Your task to perform on an android device: Do I have any events tomorrow? Image 0: 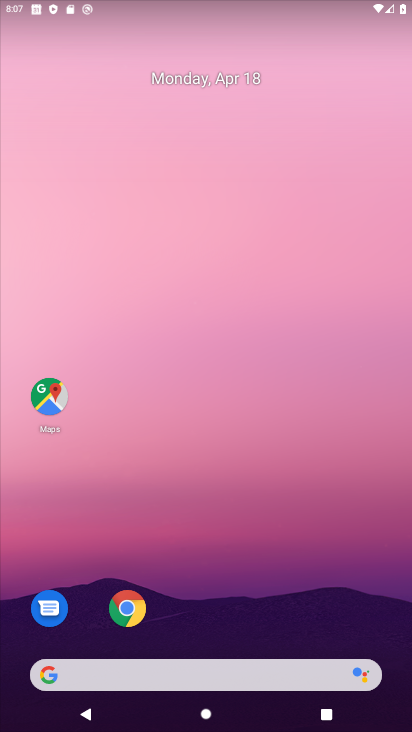
Step 0: drag from (211, 557) to (186, 175)
Your task to perform on an android device: Do I have any events tomorrow? Image 1: 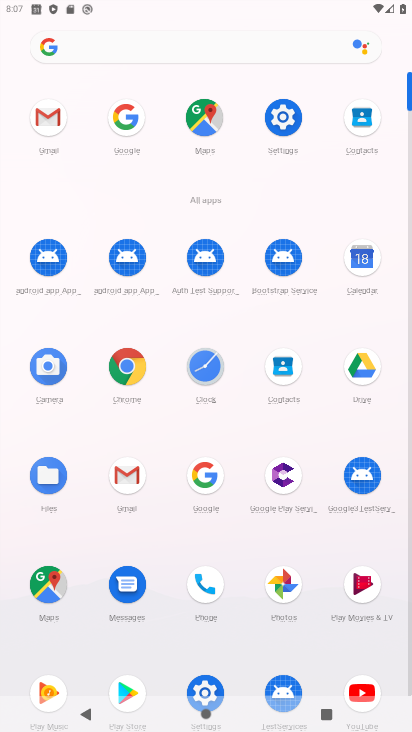
Step 1: drag from (229, 548) to (225, 448)
Your task to perform on an android device: Do I have any events tomorrow? Image 2: 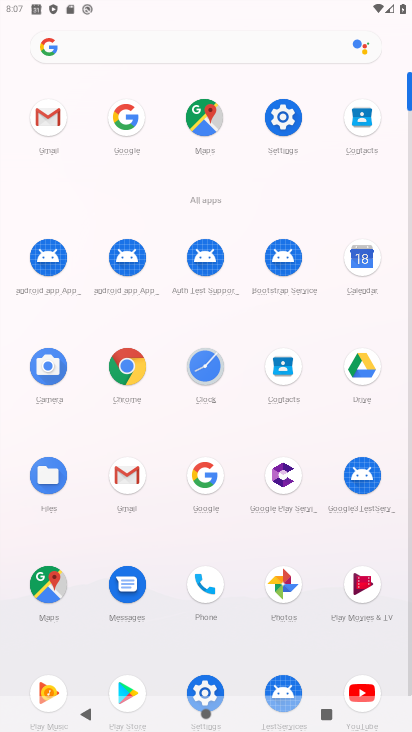
Step 2: click (359, 262)
Your task to perform on an android device: Do I have any events tomorrow? Image 3: 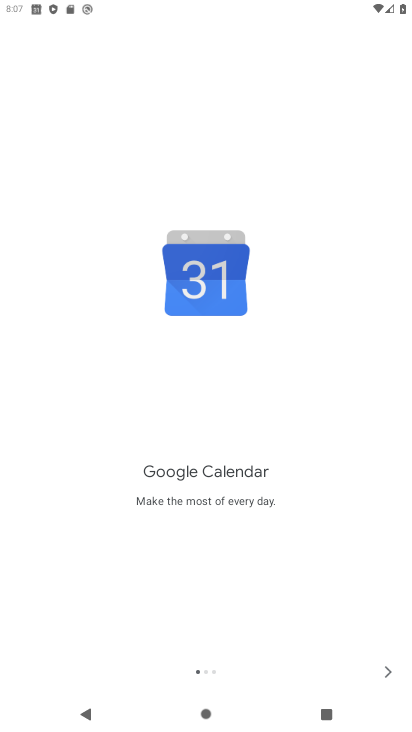
Step 3: click (384, 670)
Your task to perform on an android device: Do I have any events tomorrow? Image 4: 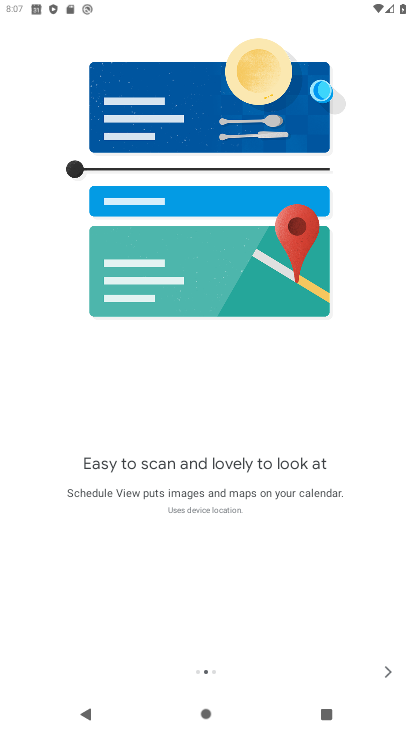
Step 4: click (384, 670)
Your task to perform on an android device: Do I have any events tomorrow? Image 5: 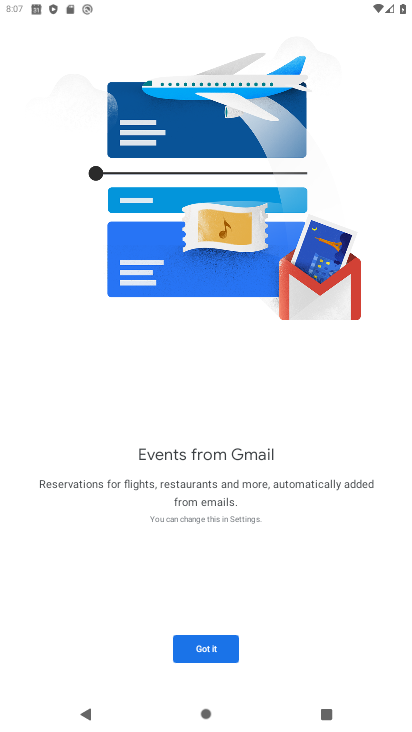
Step 5: click (213, 653)
Your task to perform on an android device: Do I have any events tomorrow? Image 6: 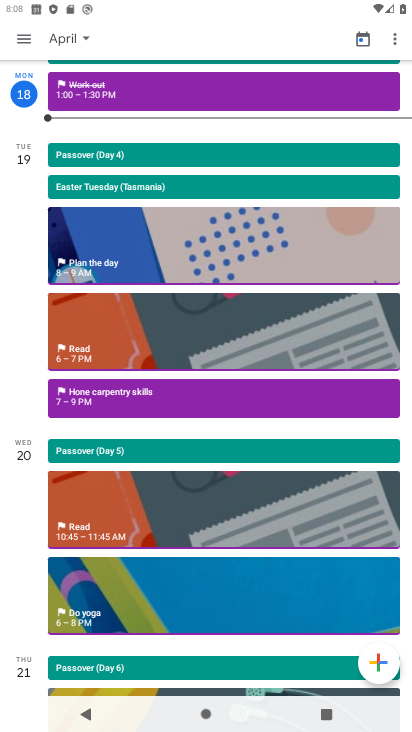
Step 6: click (86, 38)
Your task to perform on an android device: Do I have any events tomorrow? Image 7: 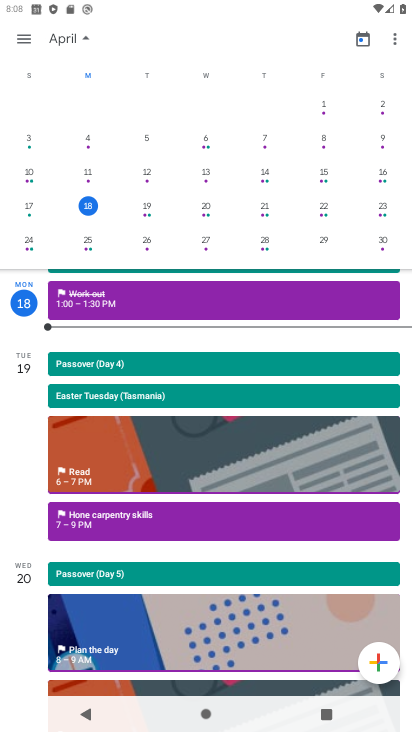
Step 7: click (84, 204)
Your task to perform on an android device: Do I have any events tomorrow? Image 8: 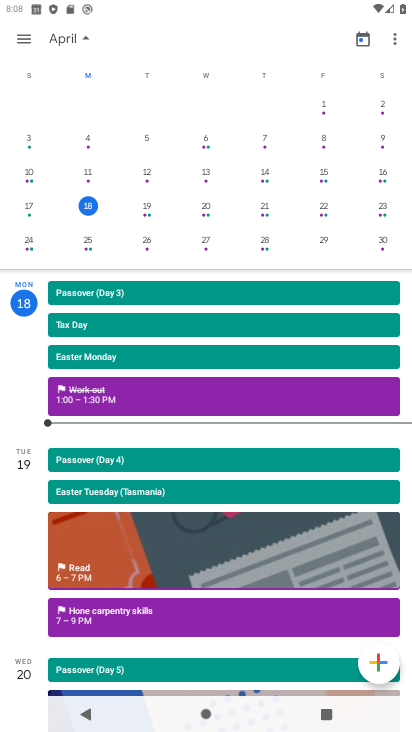
Step 8: task complete